Your task to perform on an android device: Turn off the flashlight Image 0: 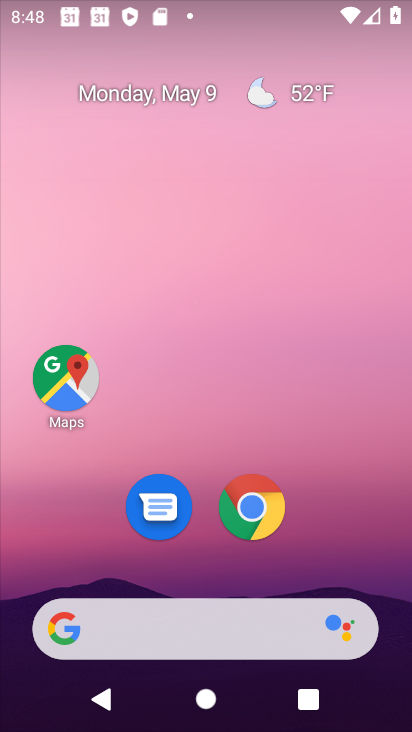
Step 0: drag from (310, 569) to (269, 8)
Your task to perform on an android device: Turn off the flashlight Image 1: 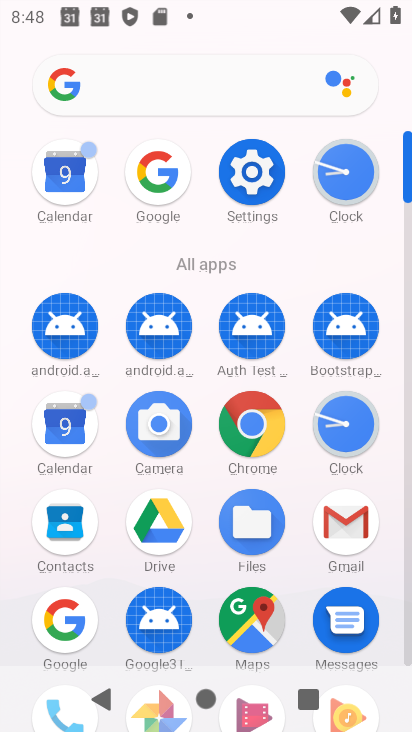
Step 1: click (252, 173)
Your task to perform on an android device: Turn off the flashlight Image 2: 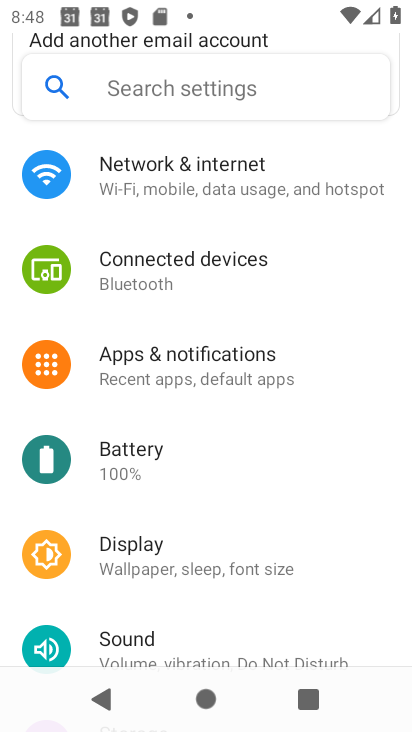
Step 2: drag from (258, 223) to (313, 379)
Your task to perform on an android device: Turn off the flashlight Image 3: 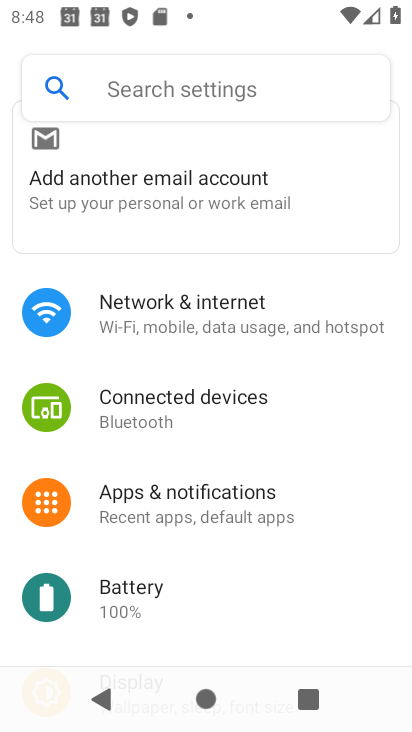
Step 3: drag from (197, 476) to (195, 362)
Your task to perform on an android device: Turn off the flashlight Image 4: 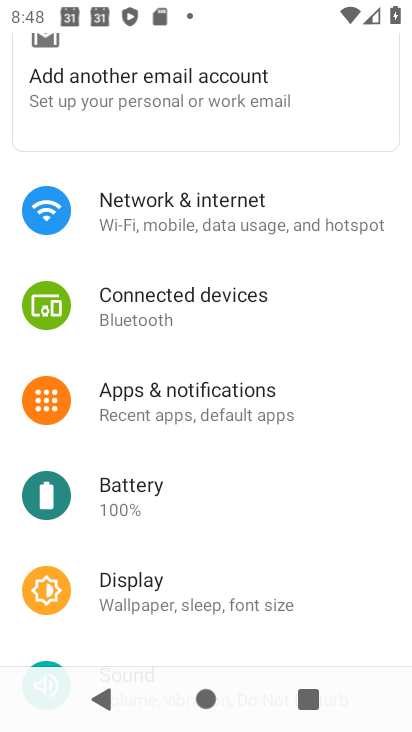
Step 4: drag from (228, 479) to (269, 392)
Your task to perform on an android device: Turn off the flashlight Image 5: 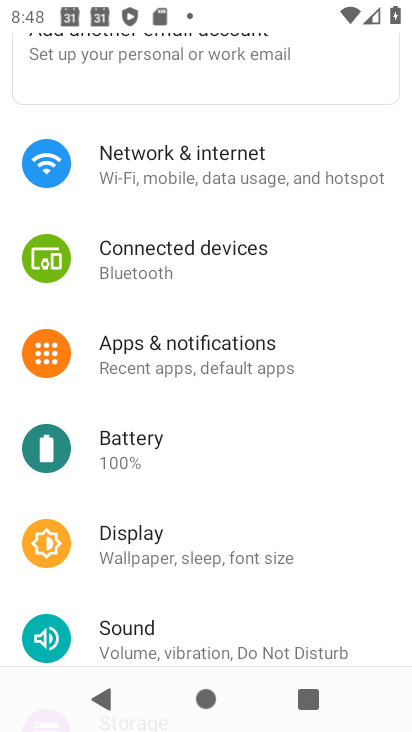
Step 5: click (209, 545)
Your task to perform on an android device: Turn off the flashlight Image 6: 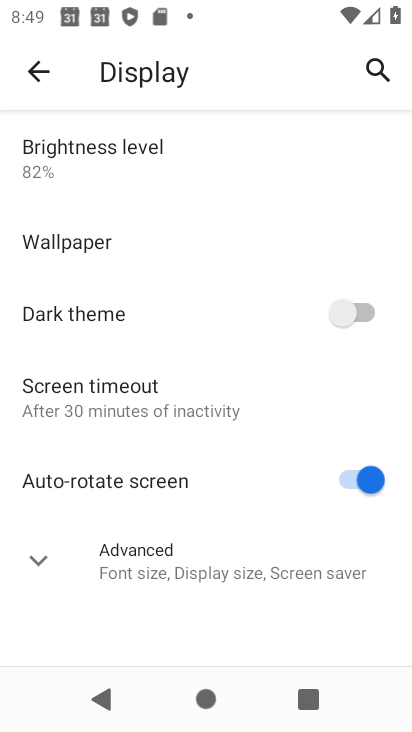
Step 6: drag from (159, 416) to (166, 260)
Your task to perform on an android device: Turn off the flashlight Image 7: 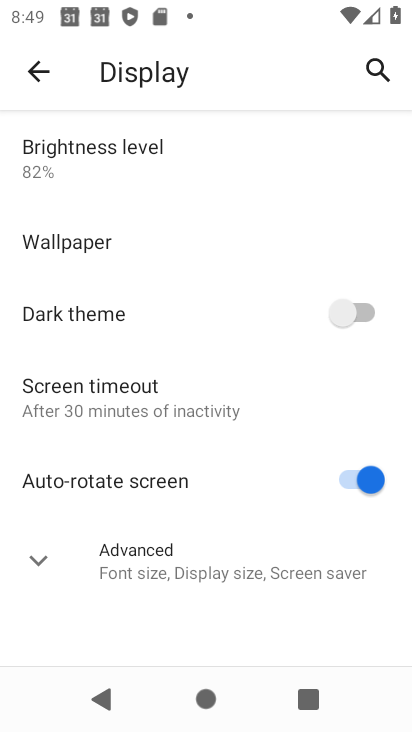
Step 7: drag from (150, 326) to (184, 419)
Your task to perform on an android device: Turn off the flashlight Image 8: 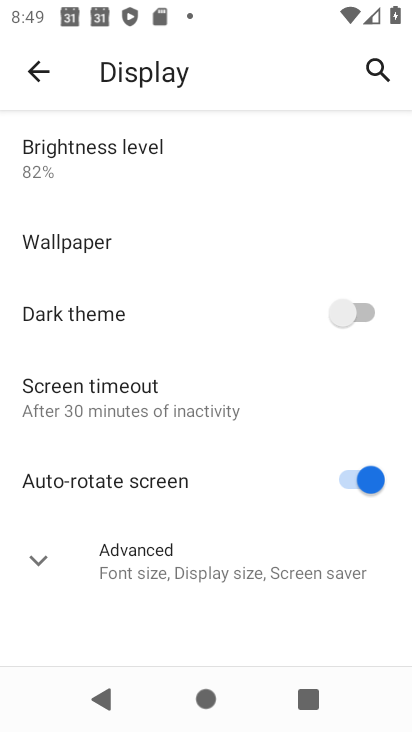
Step 8: click (162, 574)
Your task to perform on an android device: Turn off the flashlight Image 9: 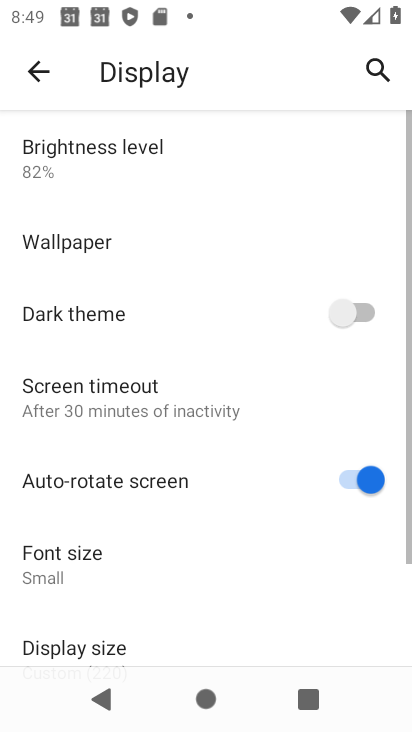
Step 9: drag from (169, 574) to (179, 329)
Your task to perform on an android device: Turn off the flashlight Image 10: 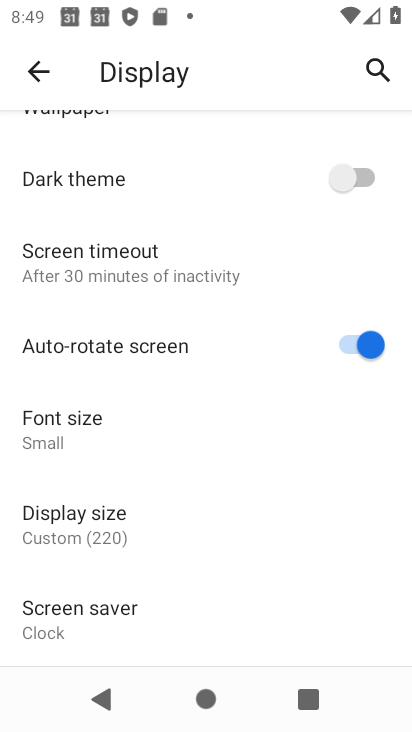
Step 10: press back button
Your task to perform on an android device: Turn off the flashlight Image 11: 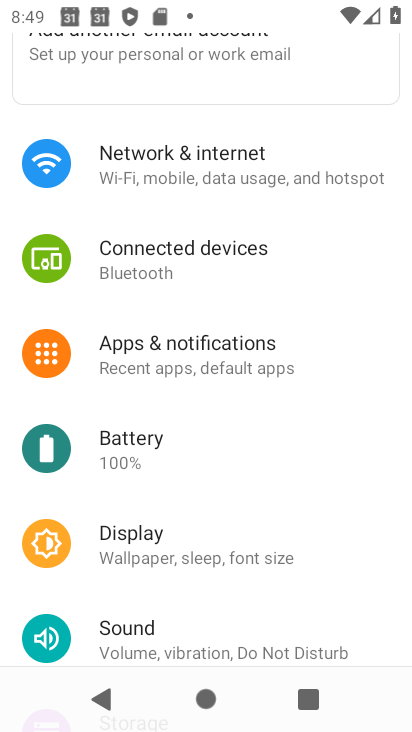
Step 11: drag from (193, 575) to (206, 476)
Your task to perform on an android device: Turn off the flashlight Image 12: 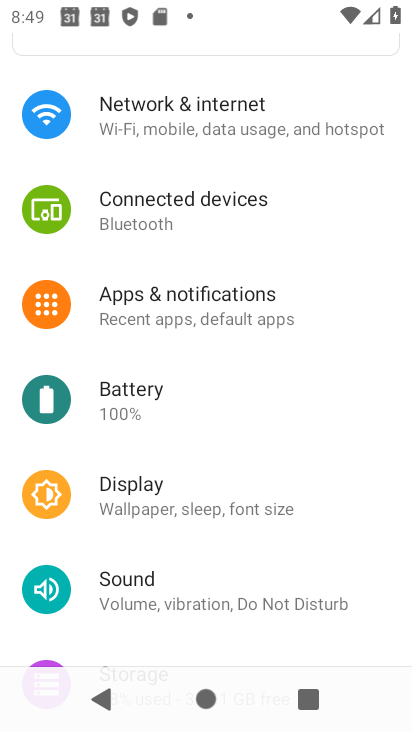
Step 12: click (187, 606)
Your task to perform on an android device: Turn off the flashlight Image 13: 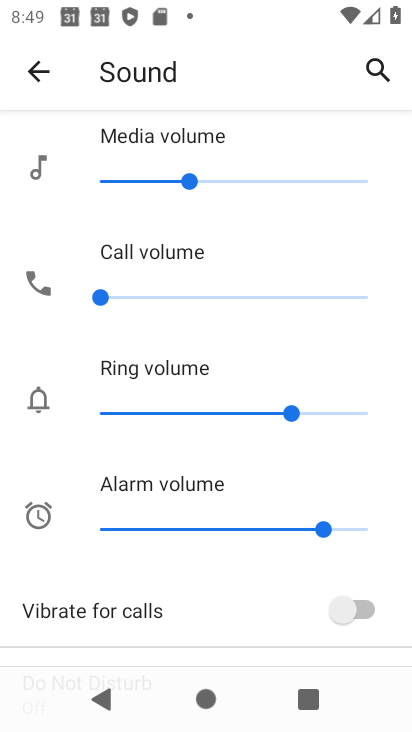
Step 13: drag from (221, 582) to (344, 244)
Your task to perform on an android device: Turn off the flashlight Image 14: 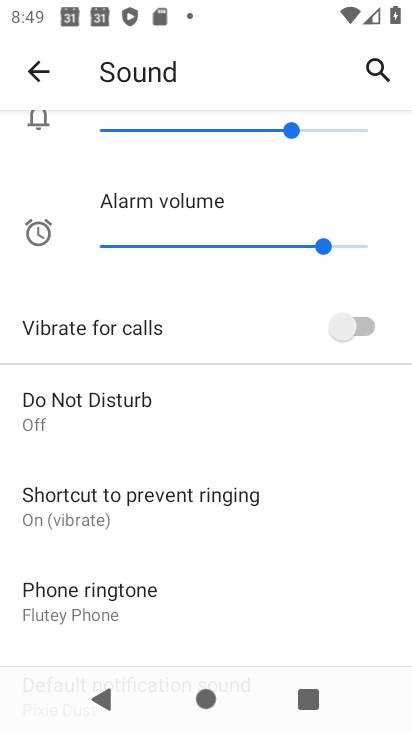
Step 14: drag from (230, 480) to (311, 260)
Your task to perform on an android device: Turn off the flashlight Image 15: 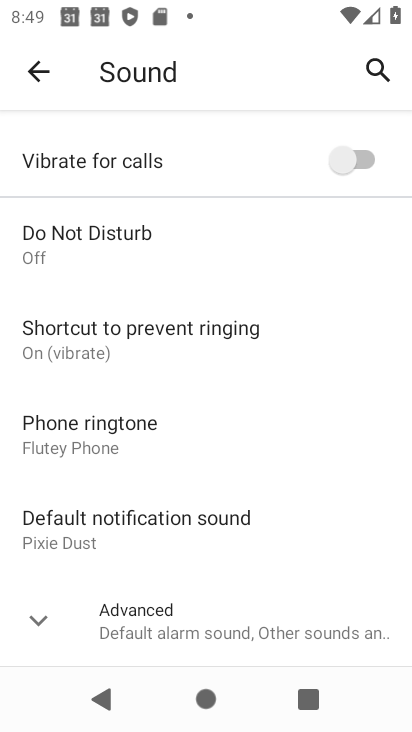
Step 15: press back button
Your task to perform on an android device: Turn off the flashlight Image 16: 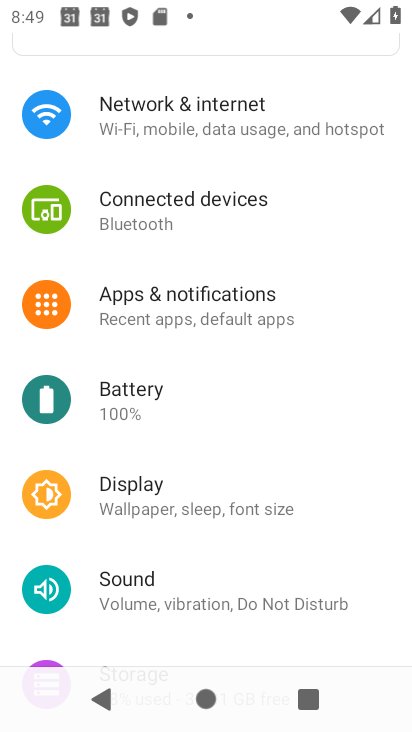
Step 16: drag from (239, 557) to (234, 333)
Your task to perform on an android device: Turn off the flashlight Image 17: 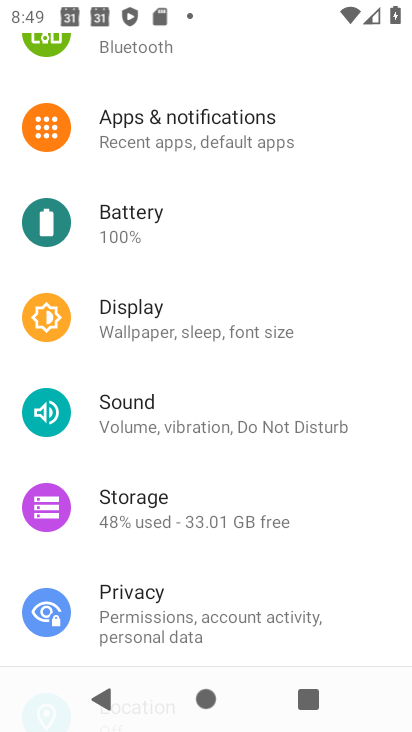
Step 17: click (158, 523)
Your task to perform on an android device: Turn off the flashlight Image 18: 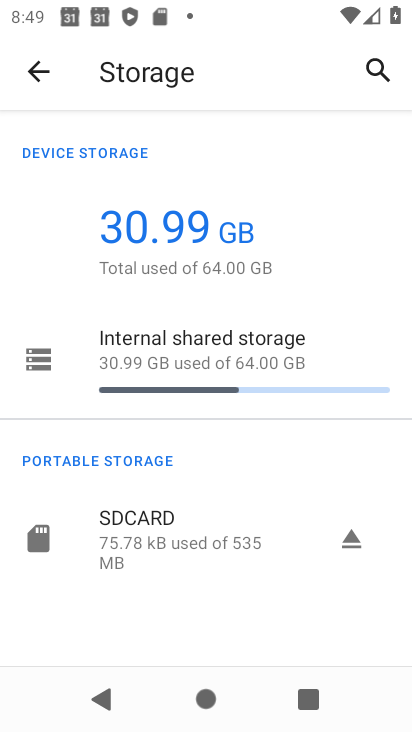
Step 18: press back button
Your task to perform on an android device: Turn off the flashlight Image 19: 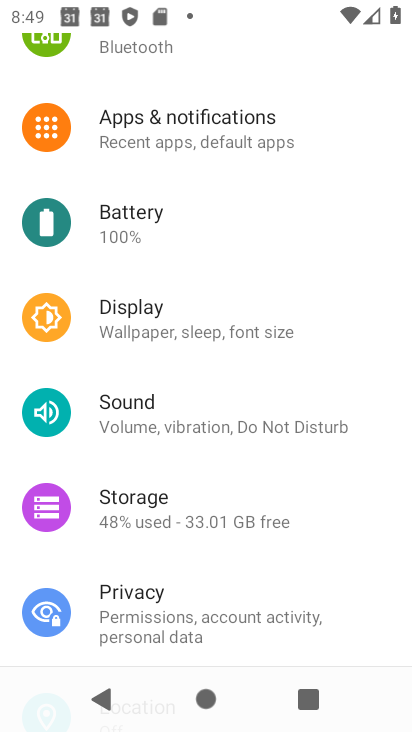
Step 19: drag from (157, 564) to (222, 361)
Your task to perform on an android device: Turn off the flashlight Image 20: 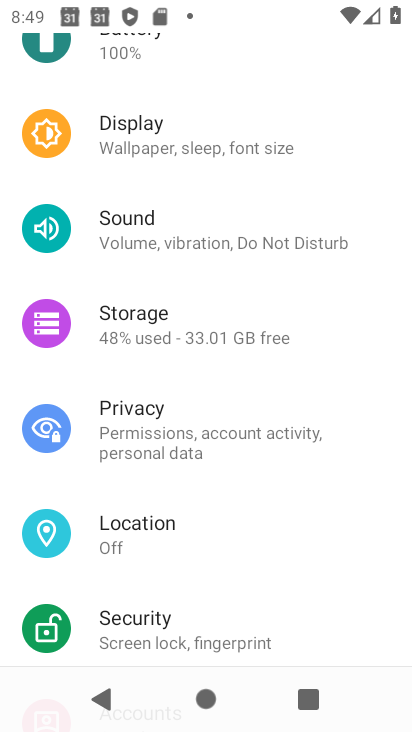
Step 20: drag from (173, 552) to (189, 379)
Your task to perform on an android device: Turn off the flashlight Image 21: 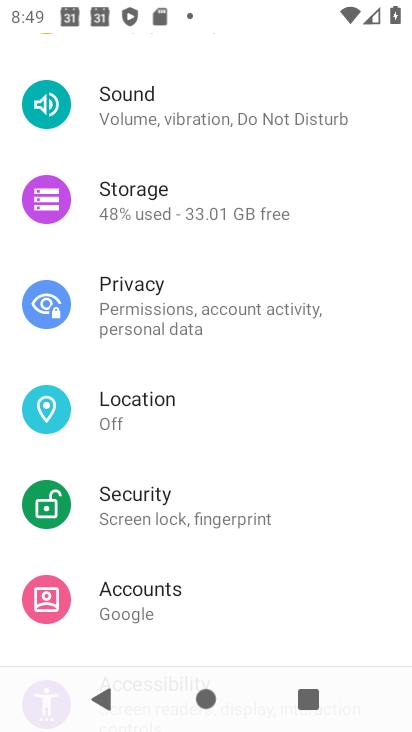
Step 21: drag from (163, 533) to (205, 394)
Your task to perform on an android device: Turn off the flashlight Image 22: 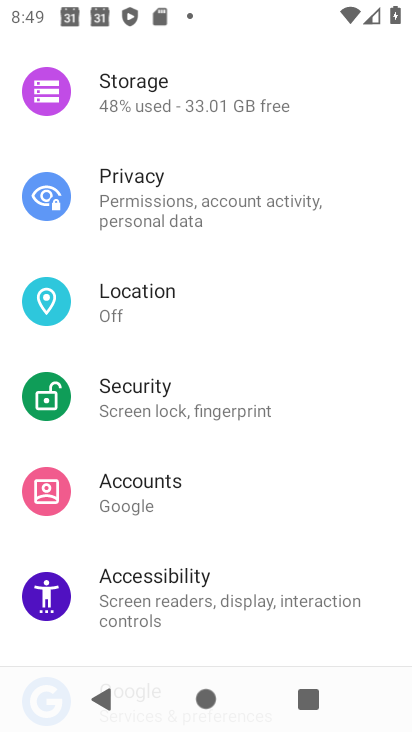
Step 22: click (168, 412)
Your task to perform on an android device: Turn off the flashlight Image 23: 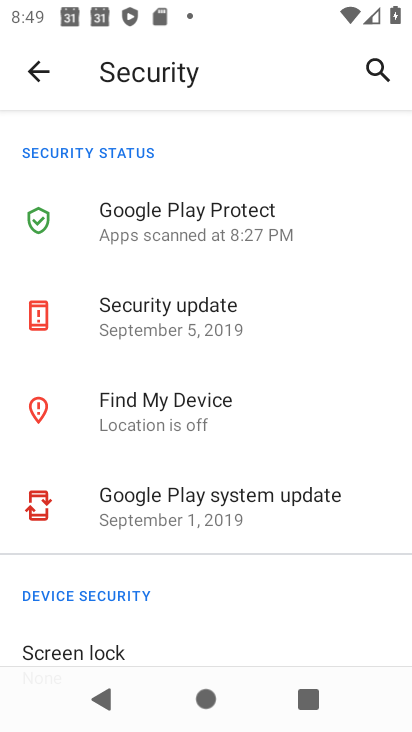
Step 23: press back button
Your task to perform on an android device: Turn off the flashlight Image 24: 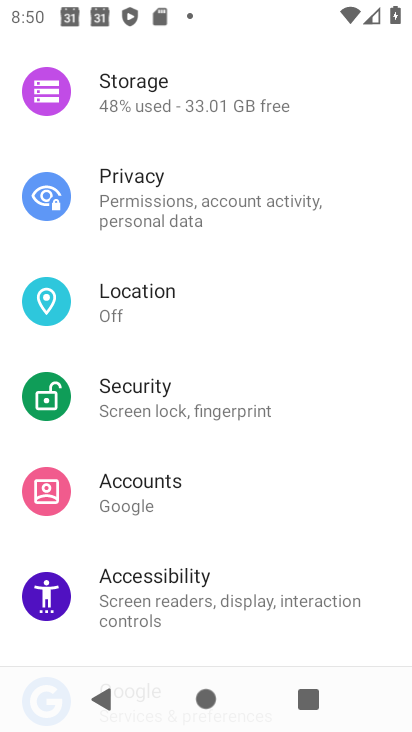
Step 24: drag from (220, 572) to (299, 299)
Your task to perform on an android device: Turn off the flashlight Image 25: 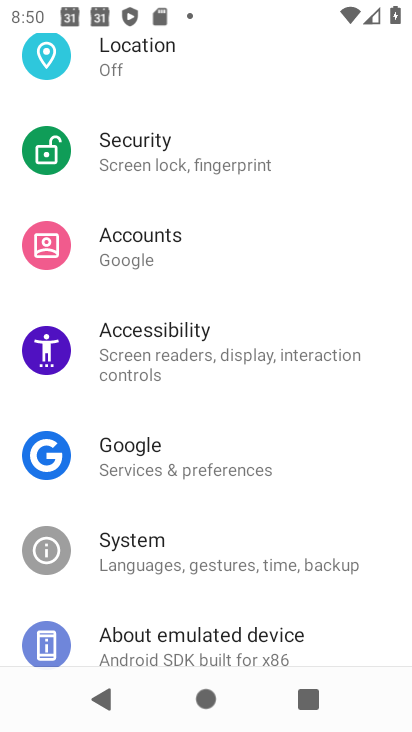
Step 25: drag from (200, 578) to (292, 348)
Your task to perform on an android device: Turn off the flashlight Image 26: 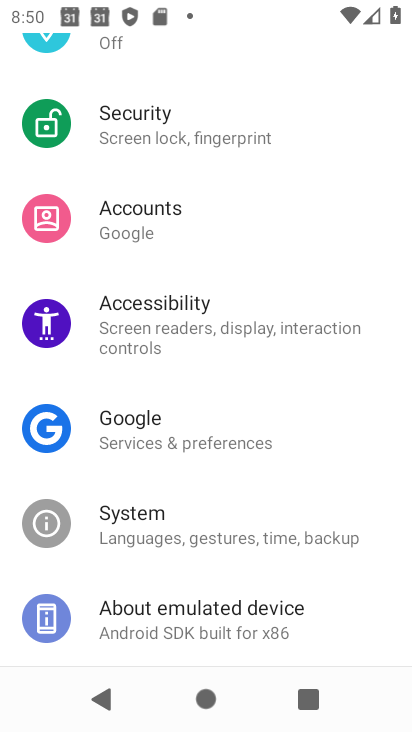
Step 26: click (268, 527)
Your task to perform on an android device: Turn off the flashlight Image 27: 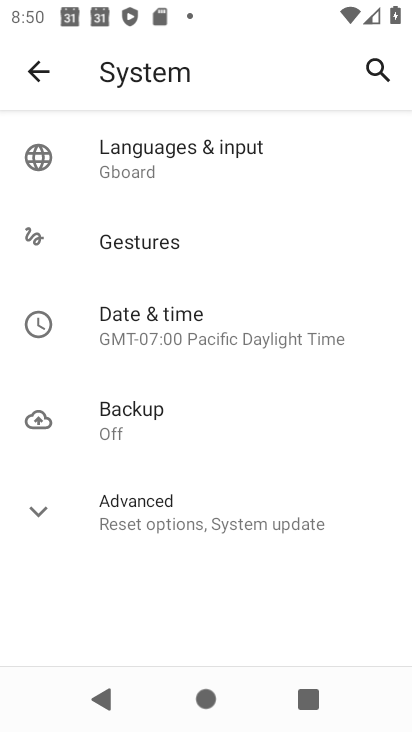
Step 27: task complete